Your task to perform on an android device: toggle improve location accuracy Image 0: 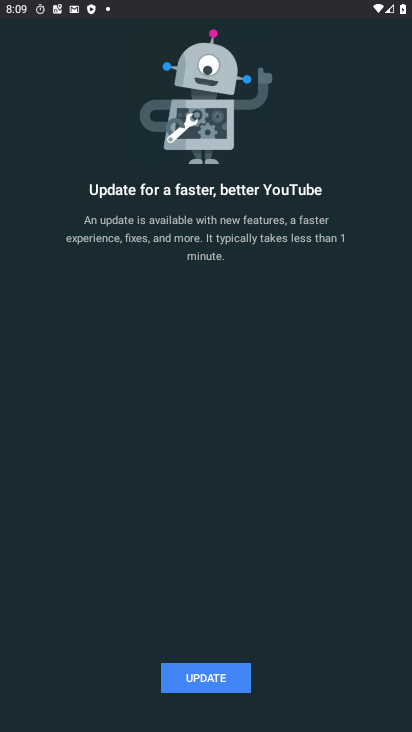
Step 0: press home button
Your task to perform on an android device: toggle improve location accuracy Image 1: 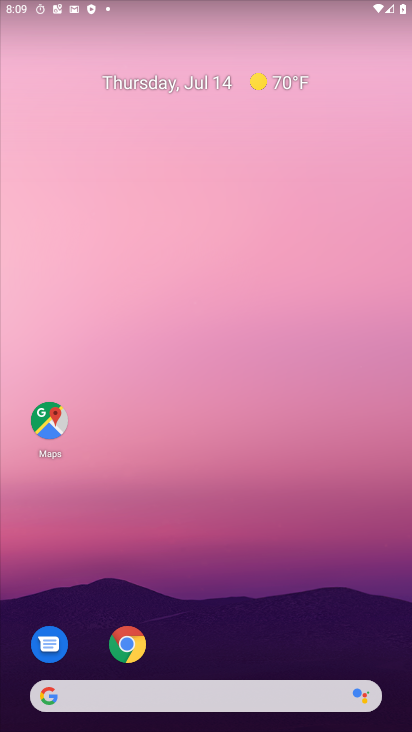
Step 1: drag from (205, 638) to (347, 275)
Your task to perform on an android device: toggle improve location accuracy Image 2: 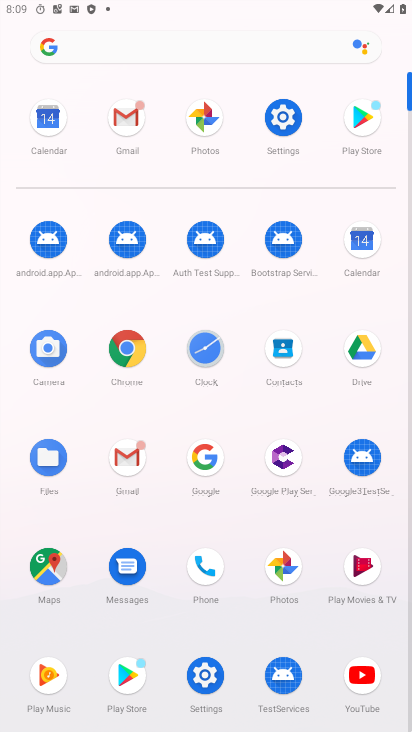
Step 2: click (276, 115)
Your task to perform on an android device: toggle improve location accuracy Image 3: 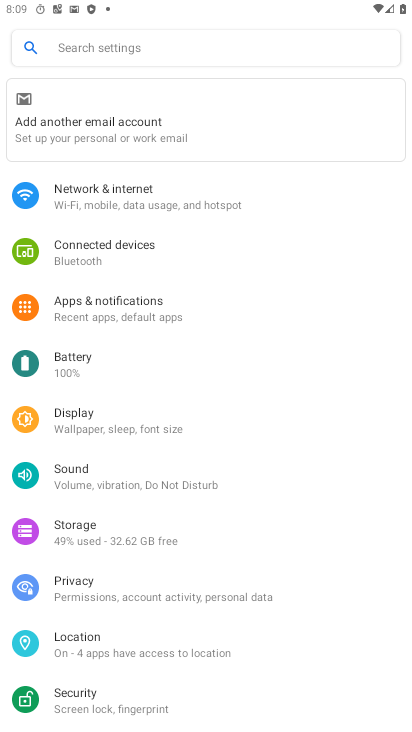
Step 3: click (145, 653)
Your task to perform on an android device: toggle improve location accuracy Image 4: 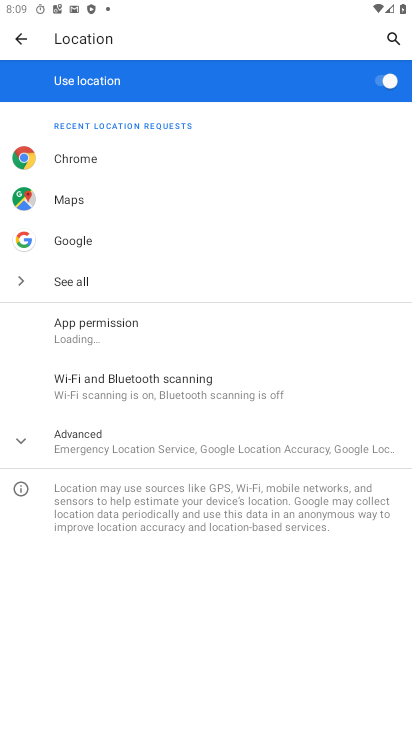
Step 4: click (141, 449)
Your task to perform on an android device: toggle improve location accuracy Image 5: 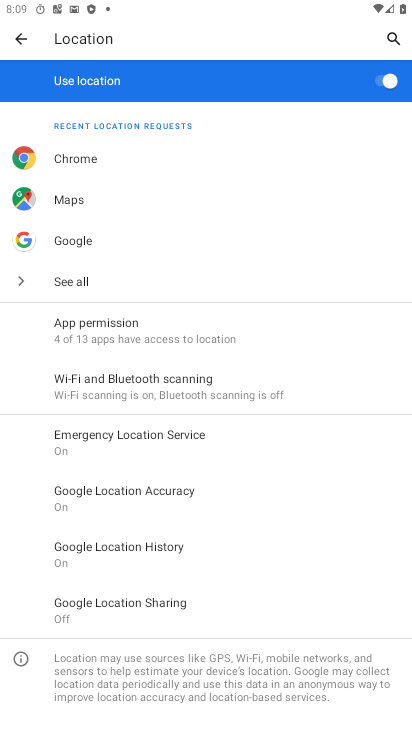
Step 5: click (176, 495)
Your task to perform on an android device: toggle improve location accuracy Image 6: 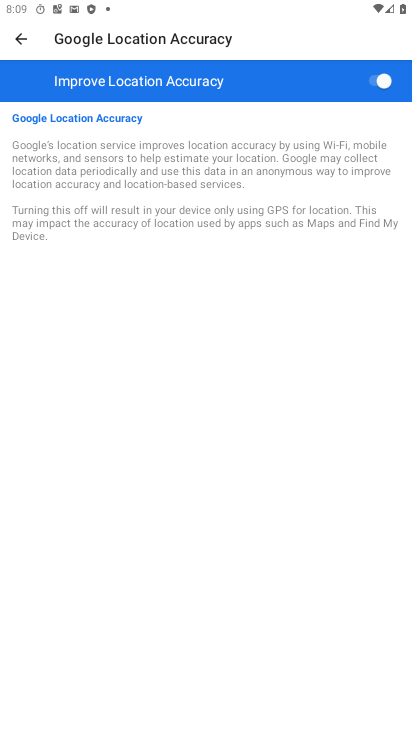
Step 6: click (373, 80)
Your task to perform on an android device: toggle improve location accuracy Image 7: 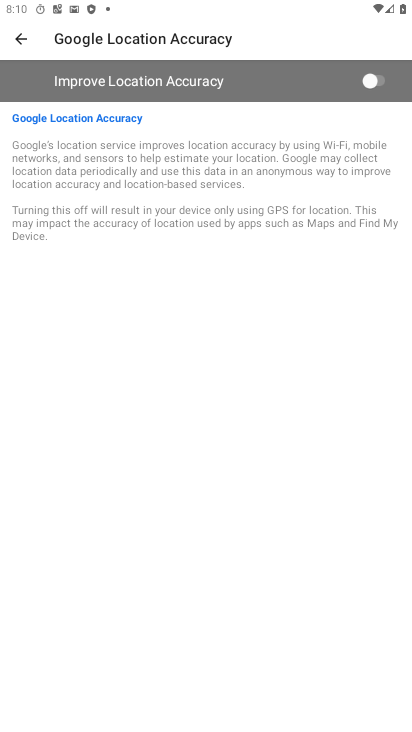
Step 7: task complete